Your task to perform on an android device: star an email in the gmail app Image 0: 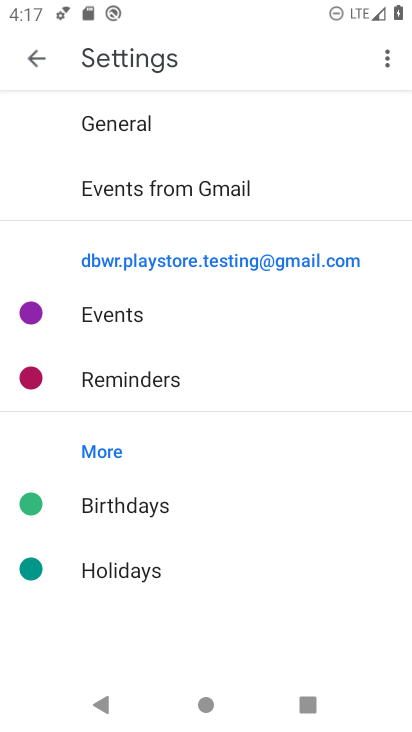
Step 0: press home button
Your task to perform on an android device: star an email in the gmail app Image 1: 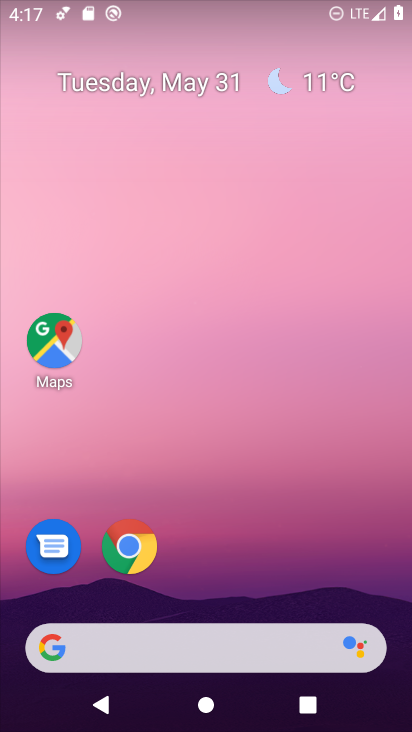
Step 1: drag from (265, 510) to (151, 22)
Your task to perform on an android device: star an email in the gmail app Image 2: 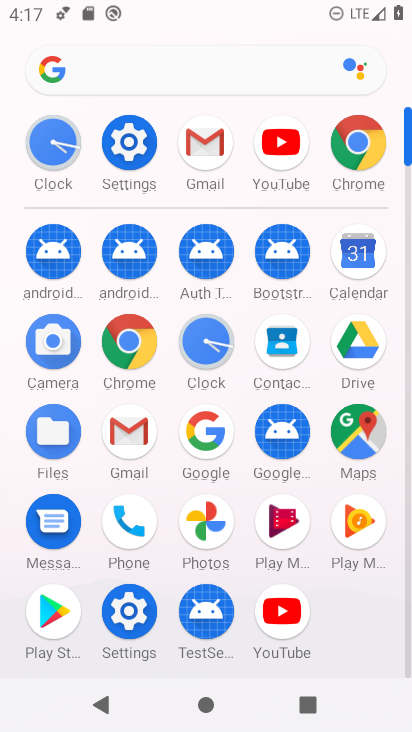
Step 2: click (203, 148)
Your task to perform on an android device: star an email in the gmail app Image 3: 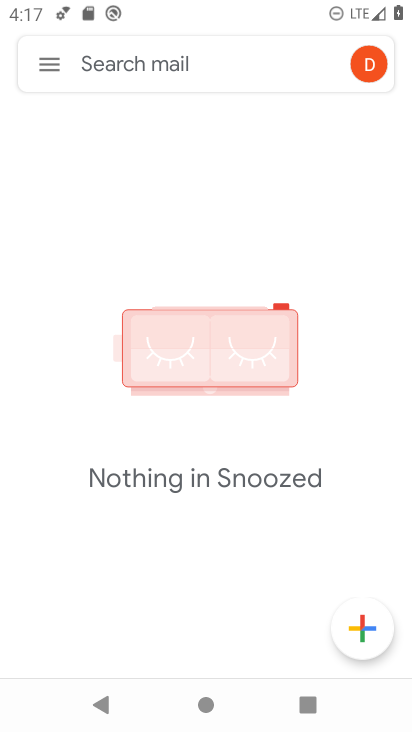
Step 3: click (48, 59)
Your task to perform on an android device: star an email in the gmail app Image 4: 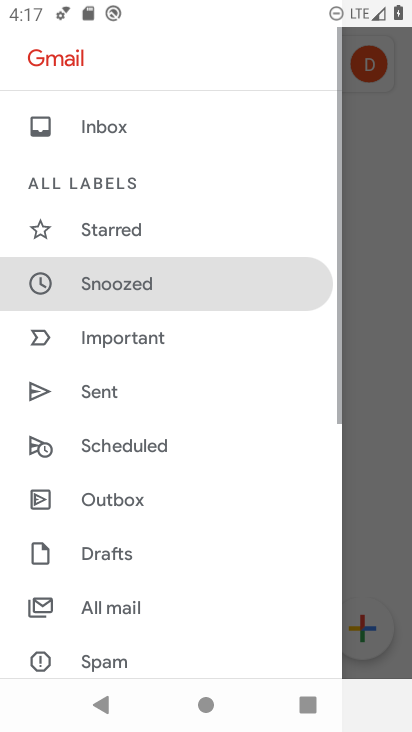
Step 4: drag from (101, 191) to (137, 640)
Your task to perform on an android device: star an email in the gmail app Image 5: 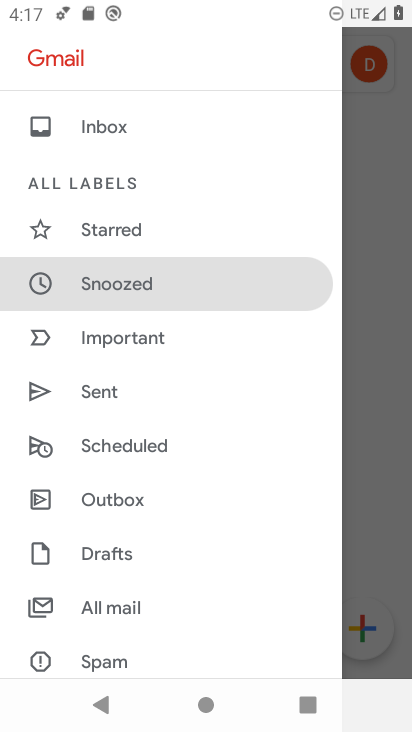
Step 5: click (129, 129)
Your task to perform on an android device: star an email in the gmail app Image 6: 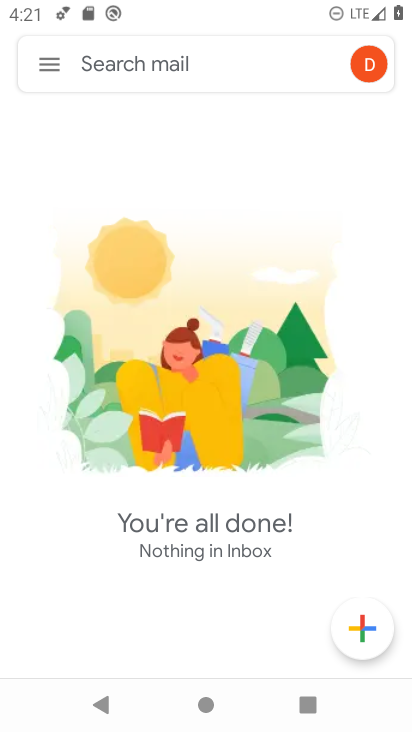
Step 6: task complete